Your task to perform on an android device: Open Chrome and go to settings Image 0: 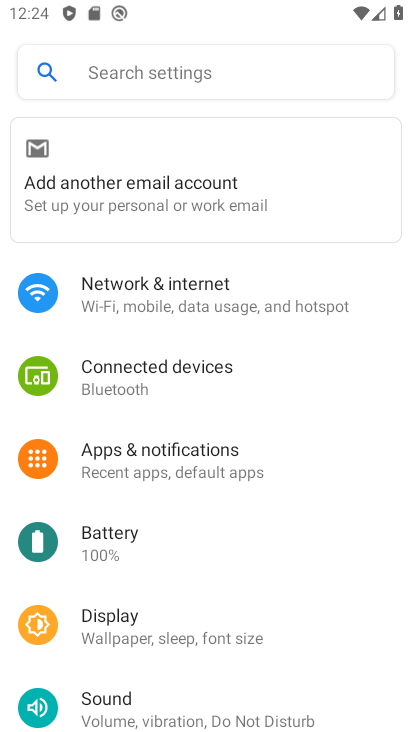
Step 0: press home button
Your task to perform on an android device: Open Chrome and go to settings Image 1: 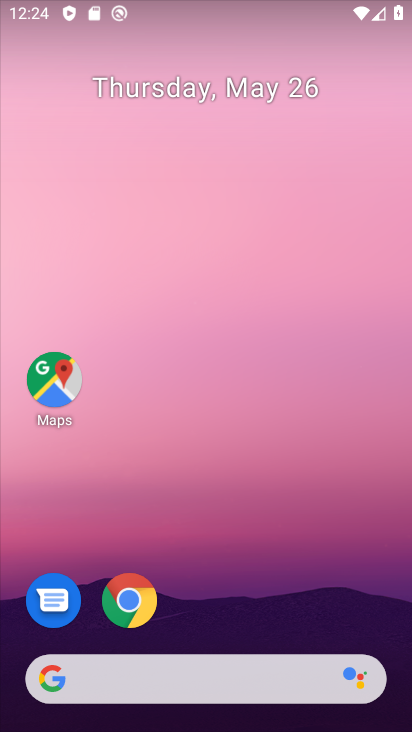
Step 1: click (116, 613)
Your task to perform on an android device: Open Chrome and go to settings Image 2: 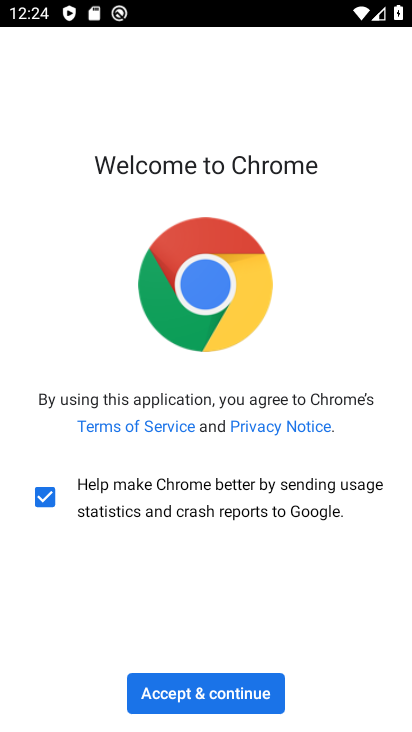
Step 2: click (237, 693)
Your task to perform on an android device: Open Chrome and go to settings Image 3: 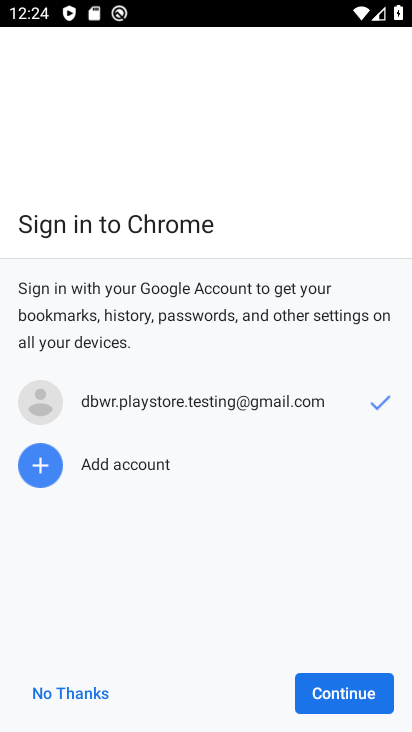
Step 3: click (343, 691)
Your task to perform on an android device: Open Chrome and go to settings Image 4: 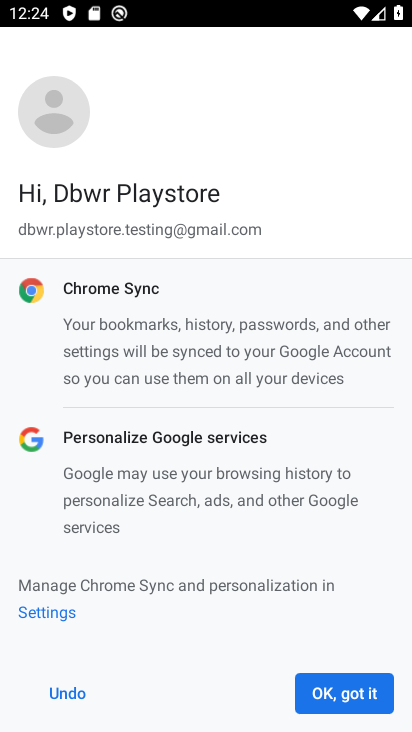
Step 4: click (337, 692)
Your task to perform on an android device: Open Chrome and go to settings Image 5: 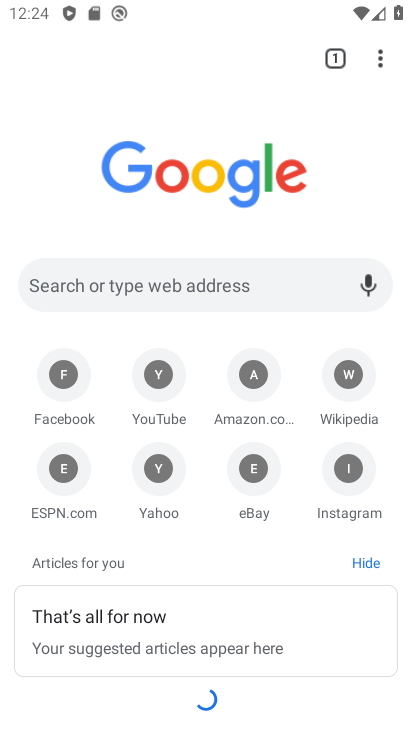
Step 5: task complete